Your task to perform on an android device: Open maps Image 0: 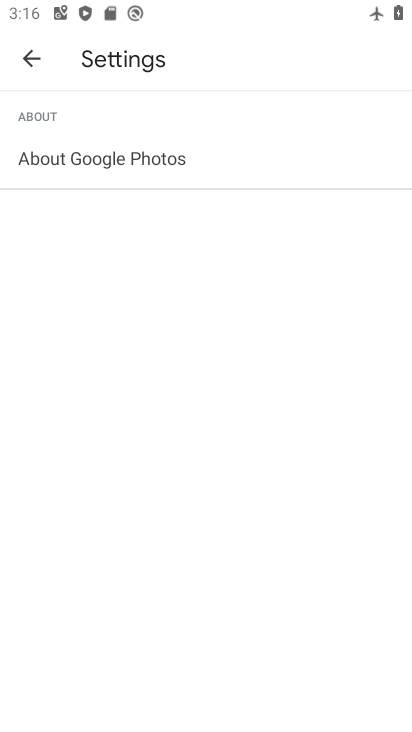
Step 0: press home button
Your task to perform on an android device: Open maps Image 1: 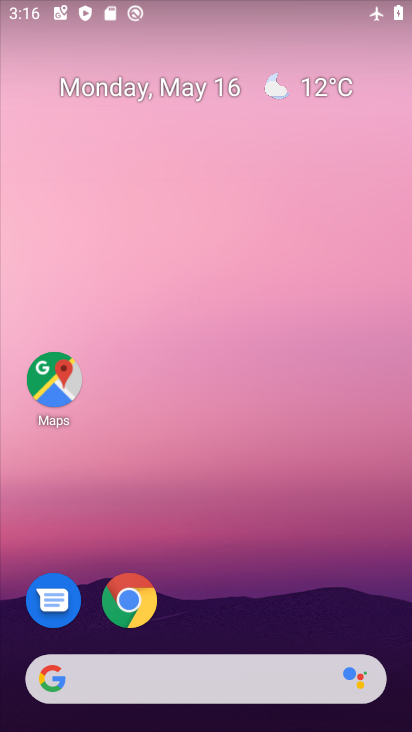
Step 1: click (58, 389)
Your task to perform on an android device: Open maps Image 2: 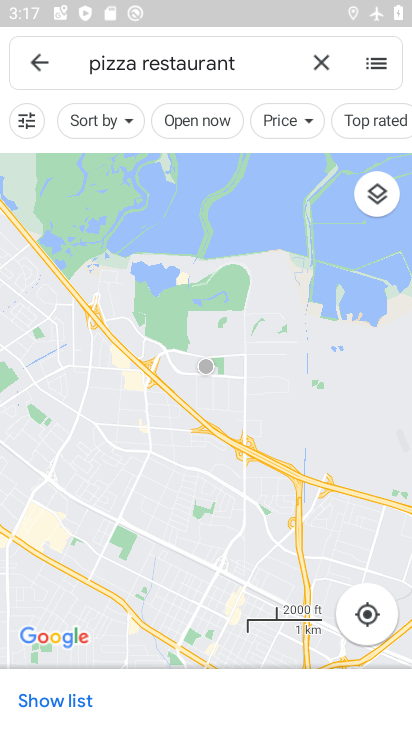
Step 2: task complete